Your task to perform on an android device: Open Google Maps Image 0: 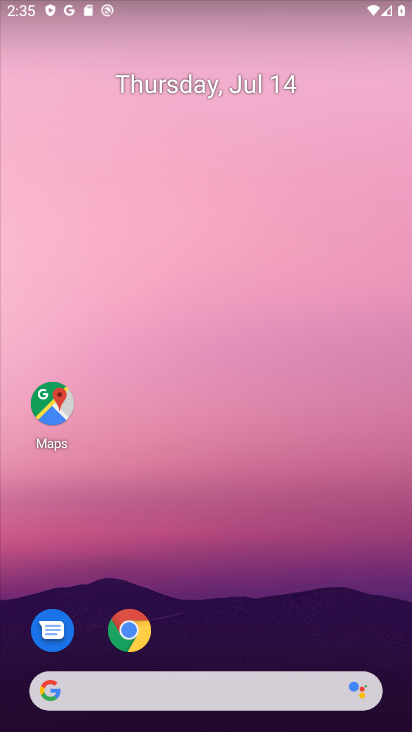
Step 0: drag from (195, 574) to (22, 21)
Your task to perform on an android device: Open Google Maps Image 1: 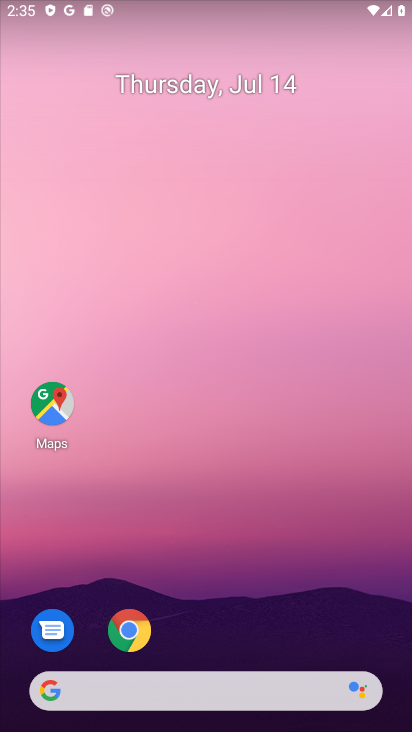
Step 1: drag from (89, 317) to (53, 169)
Your task to perform on an android device: Open Google Maps Image 2: 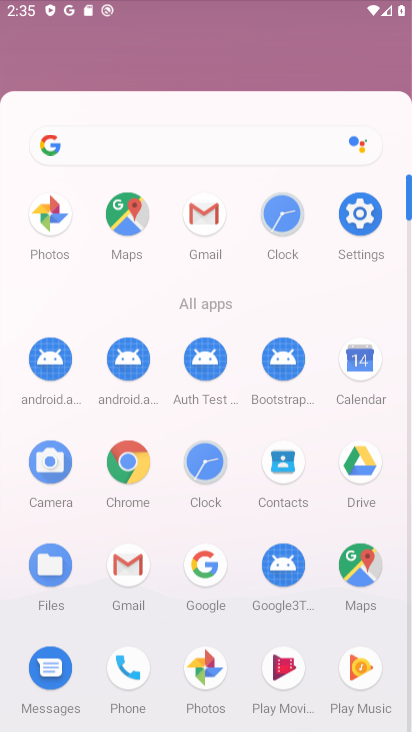
Step 2: drag from (187, 498) to (204, 430)
Your task to perform on an android device: Open Google Maps Image 3: 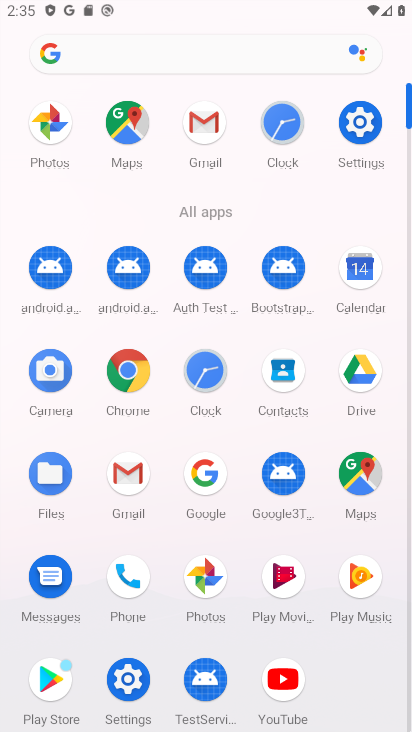
Step 3: click (333, 467)
Your task to perform on an android device: Open Google Maps Image 4: 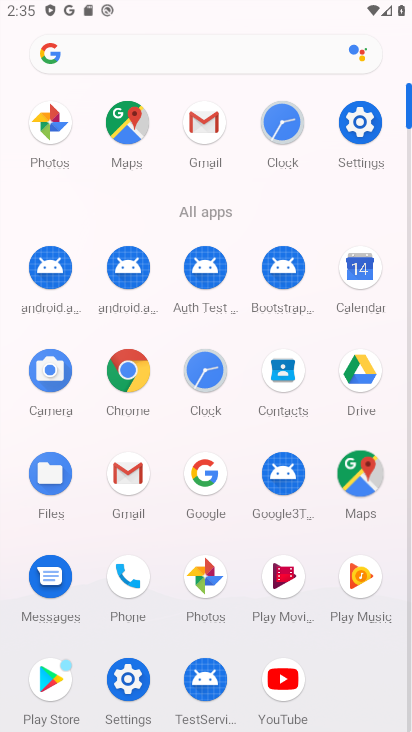
Step 4: click (351, 475)
Your task to perform on an android device: Open Google Maps Image 5: 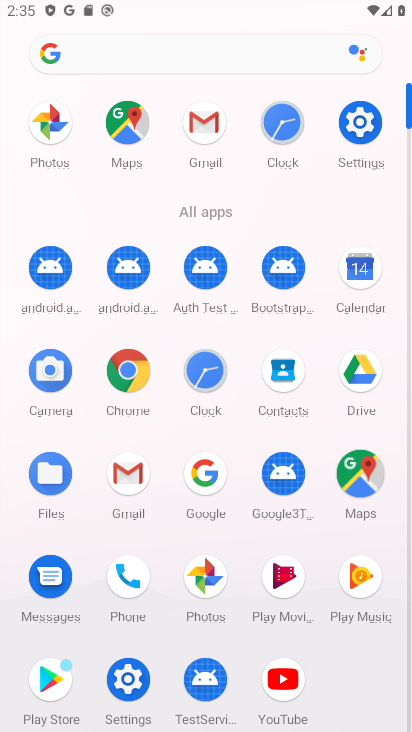
Step 5: click (355, 473)
Your task to perform on an android device: Open Google Maps Image 6: 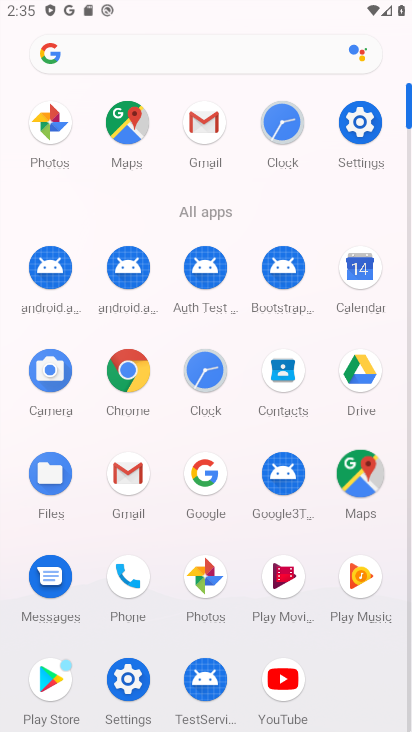
Step 6: click (357, 469)
Your task to perform on an android device: Open Google Maps Image 7: 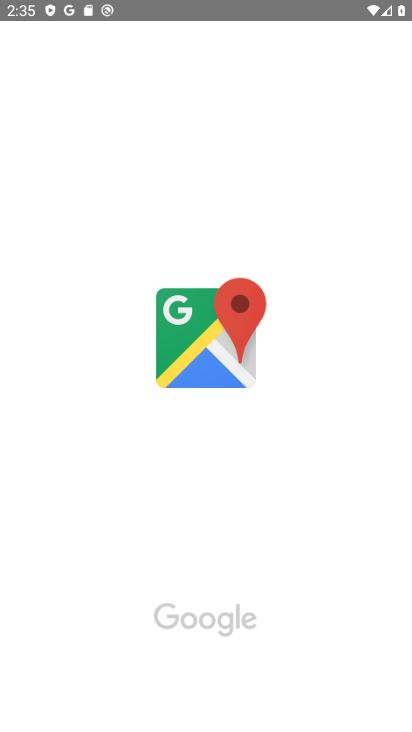
Step 7: task complete